Your task to perform on an android device: uninstall "Adobe Acrobat Reader: Edit PDF" Image 0: 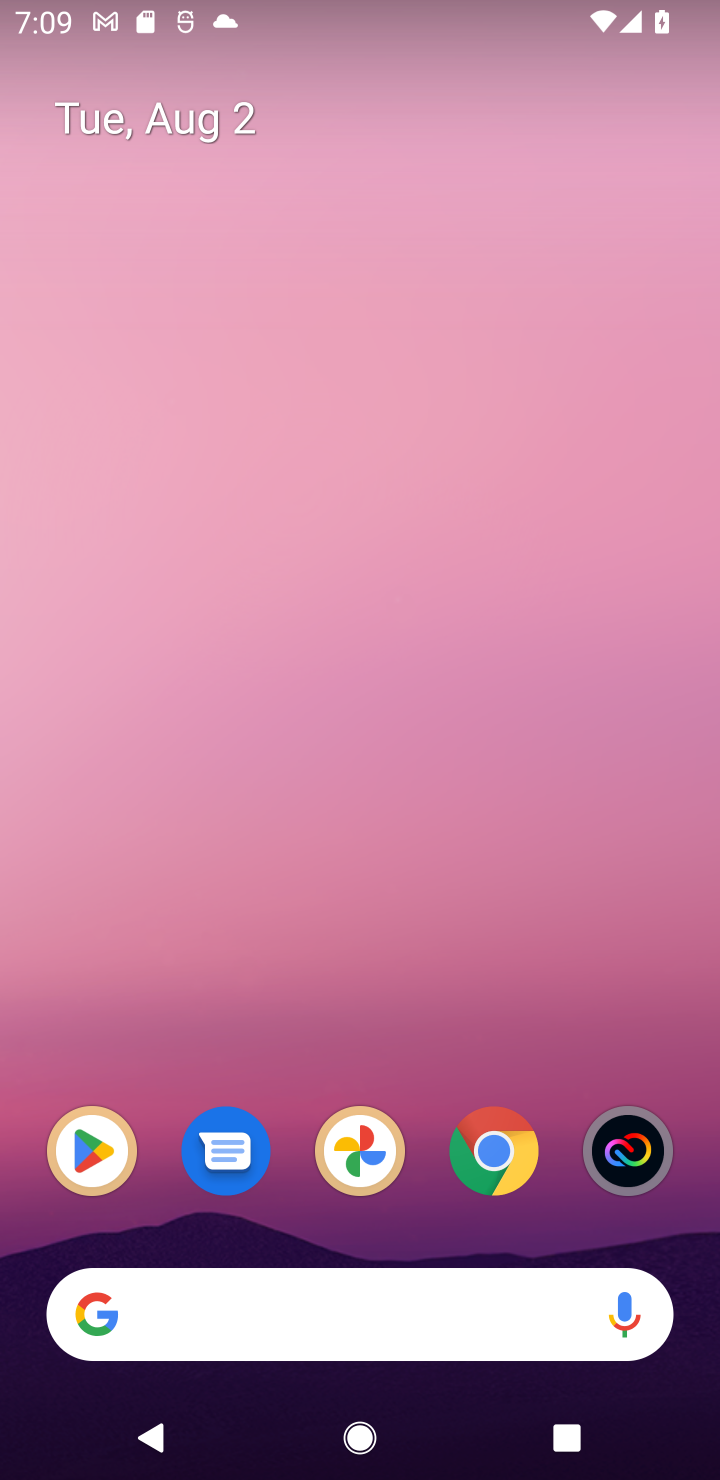
Step 0: click (76, 1156)
Your task to perform on an android device: uninstall "Adobe Acrobat Reader: Edit PDF" Image 1: 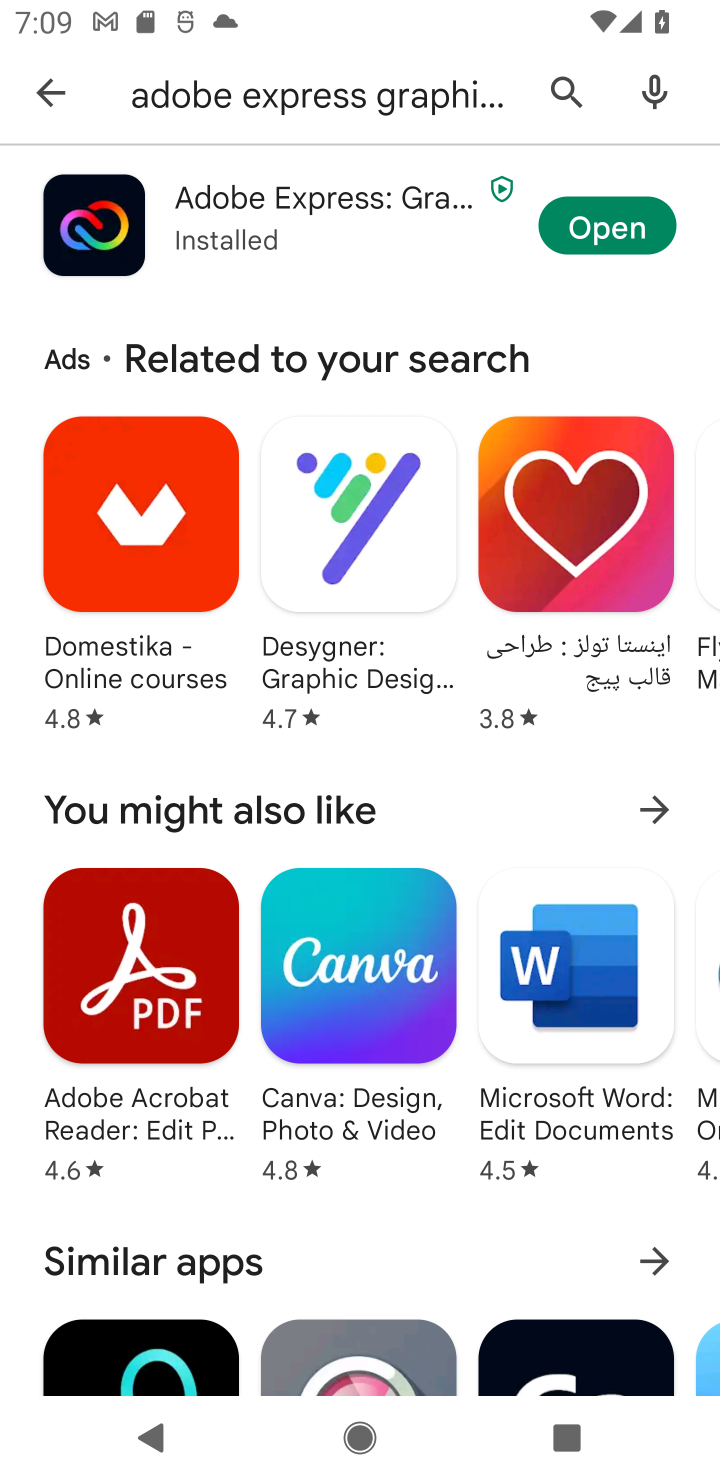
Step 1: click (274, 212)
Your task to perform on an android device: uninstall "Adobe Acrobat Reader: Edit PDF" Image 2: 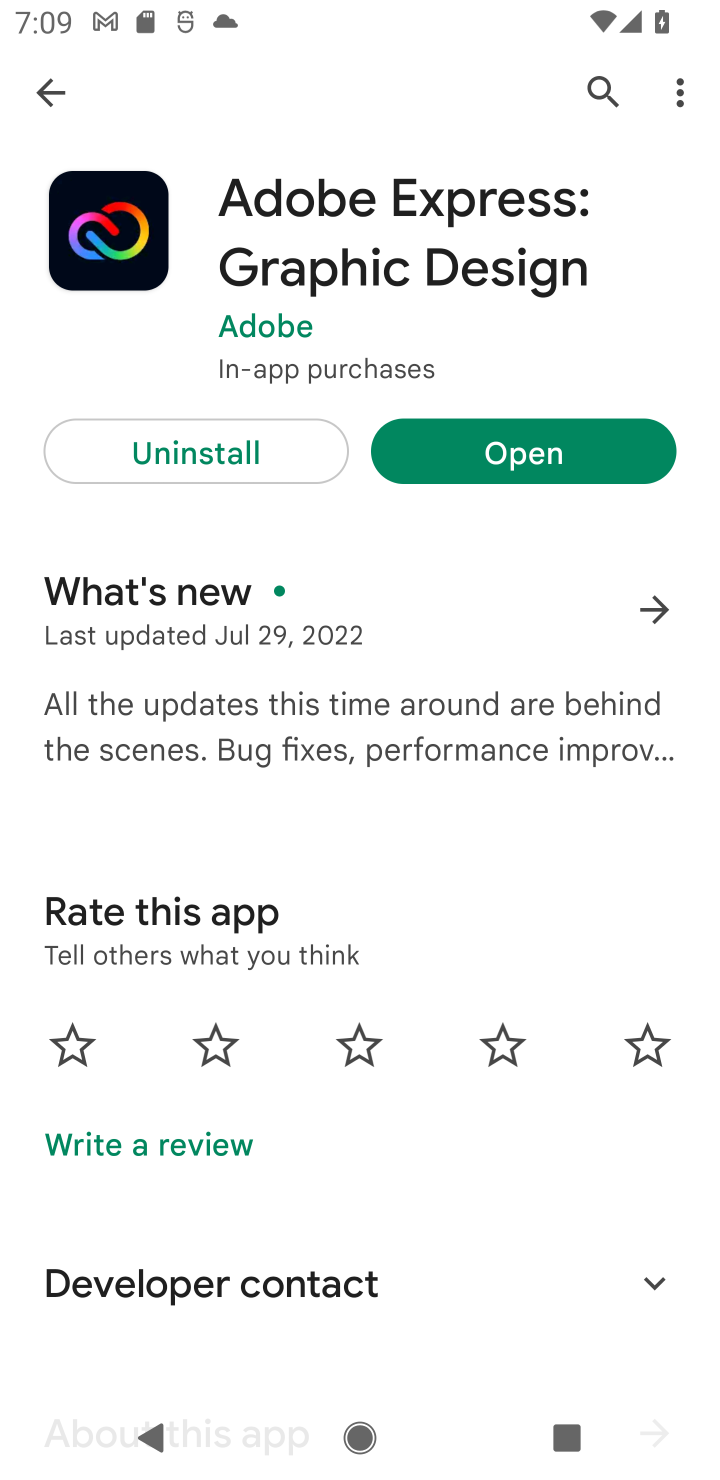
Step 2: click (603, 109)
Your task to perform on an android device: uninstall "Adobe Acrobat Reader: Edit PDF" Image 3: 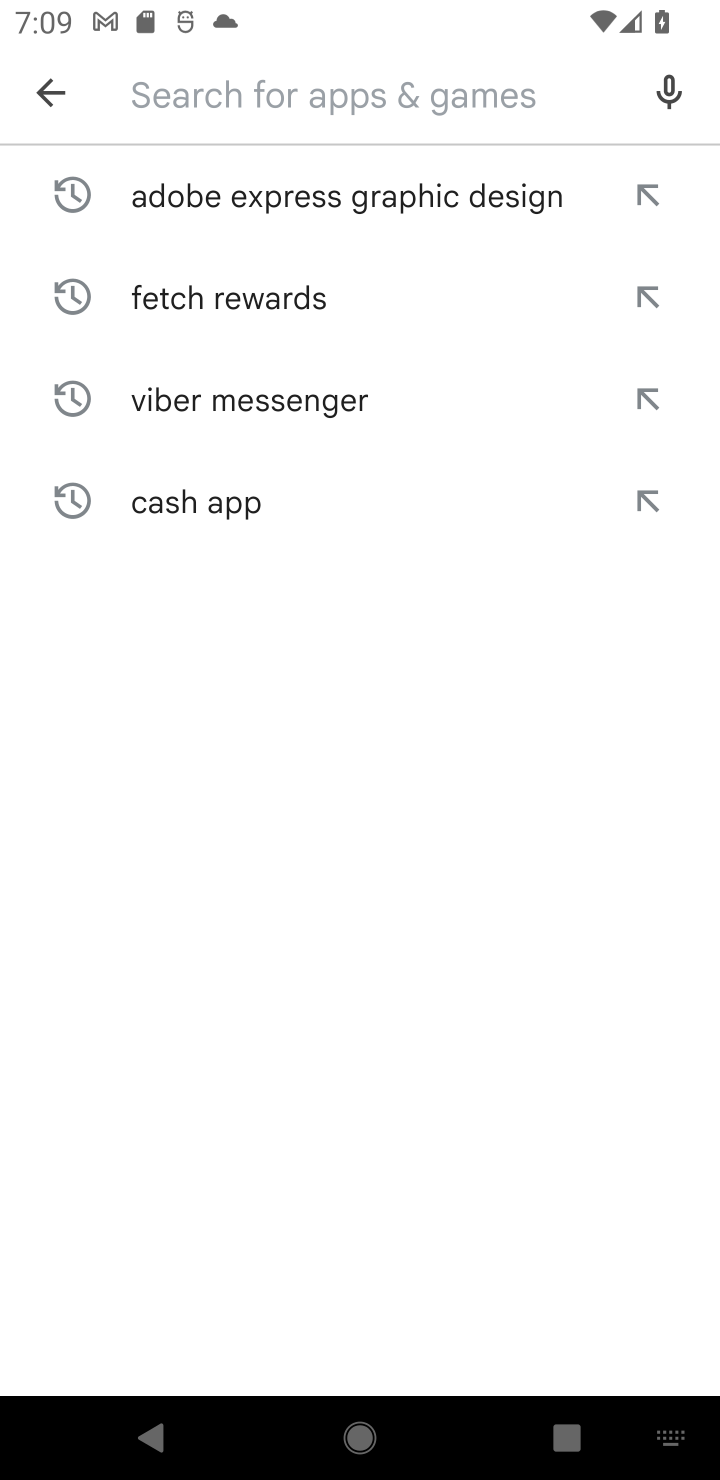
Step 3: type "Adobe Acrobat Reader: Edit PDF"
Your task to perform on an android device: uninstall "Adobe Acrobat Reader: Edit PDF" Image 4: 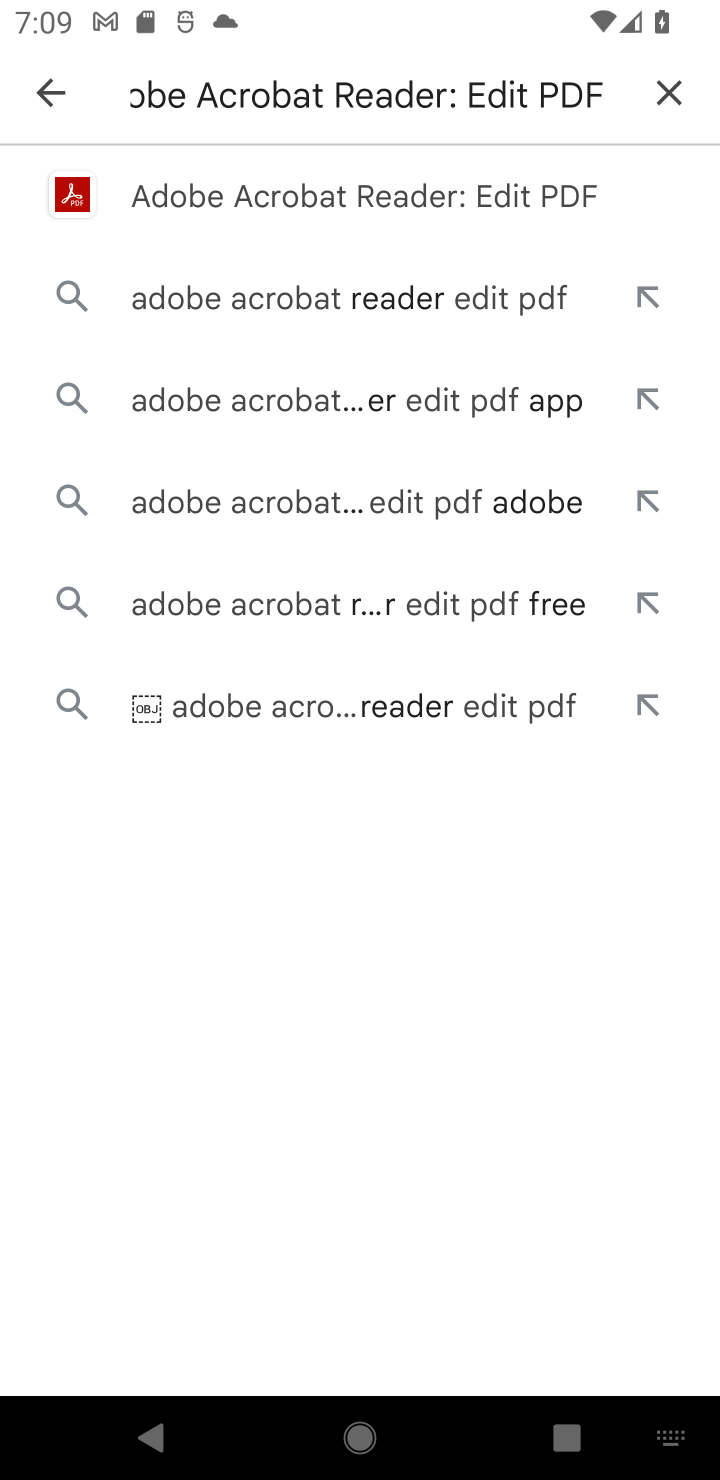
Step 4: click (270, 207)
Your task to perform on an android device: uninstall "Adobe Acrobat Reader: Edit PDF" Image 5: 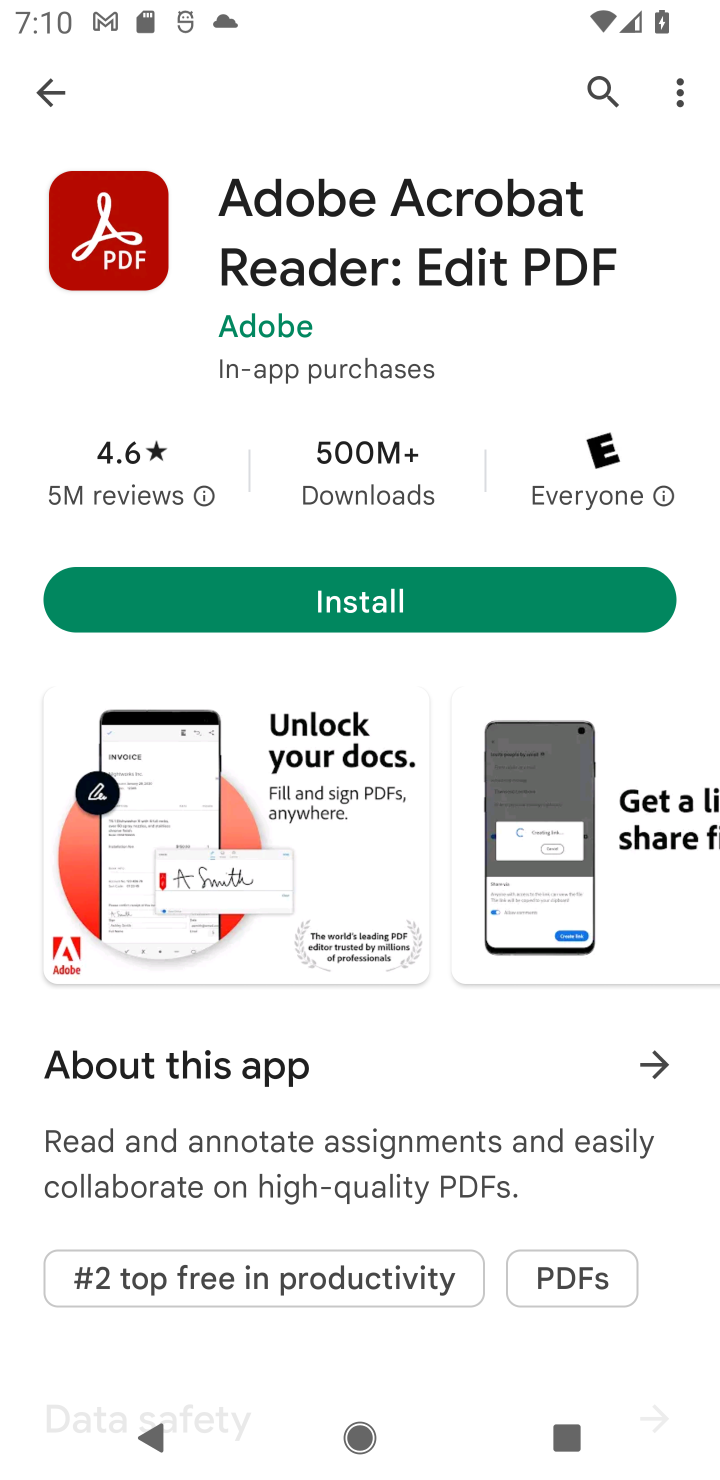
Step 5: task complete